Your task to perform on an android device: toggle sleep mode Image 0: 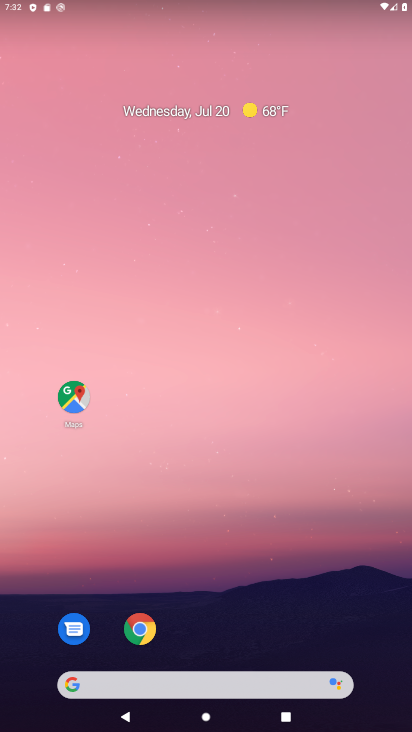
Step 0: drag from (360, 629) to (368, 86)
Your task to perform on an android device: toggle sleep mode Image 1: 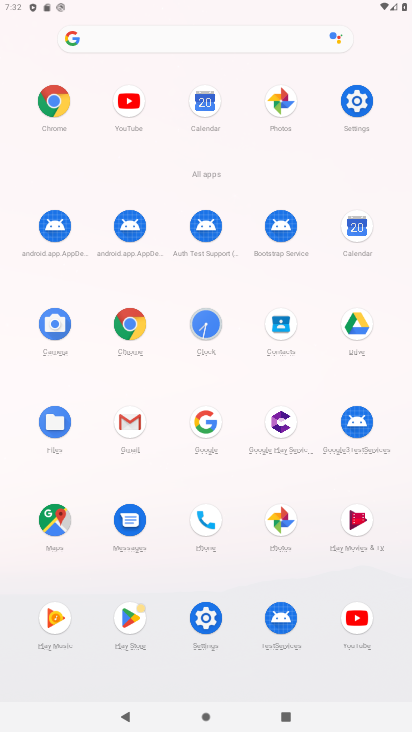
Step 1: click (358, 105)
Your task to perform on an android device: toggle sleep mode Image 2: 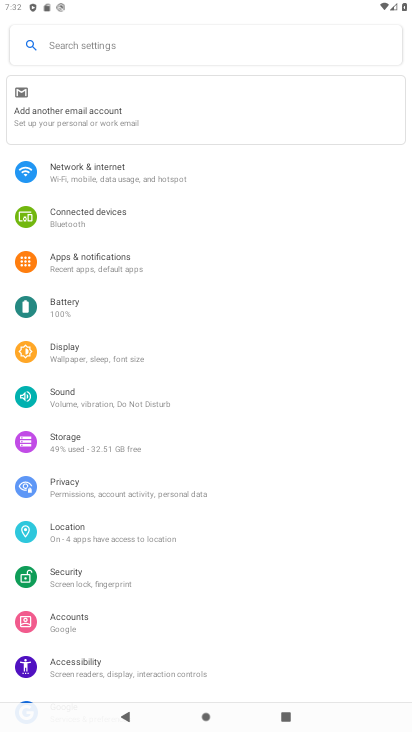
Step 2: drag from (367, 253) to (341, 432)
Your task to perform on an android device: toggle sleep mode Image 3: 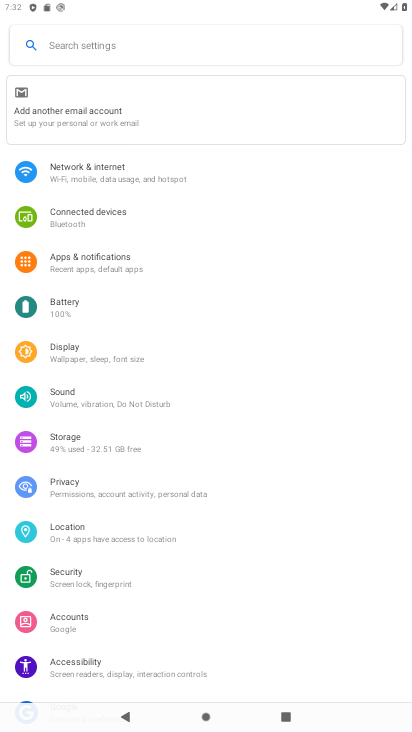
Step 3: drag from (341, 441) to (348, 384)
Your task to perform on an android device: toggle sleep mode Image 4: 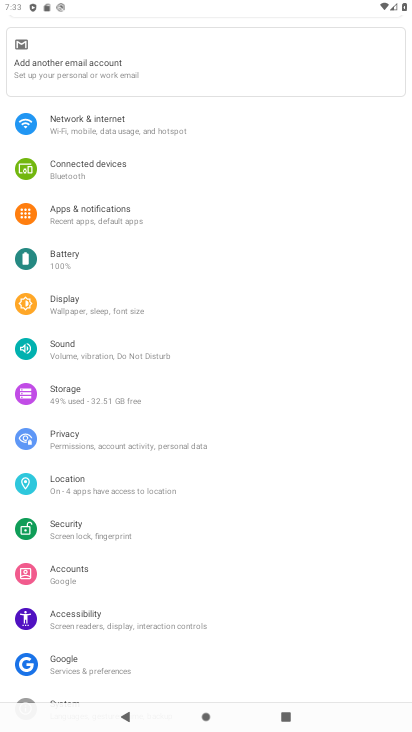
Step 4: drag from (340, 420) to (344, 271)
Your task to perform on an android device: toggle sleep mode Image 5: 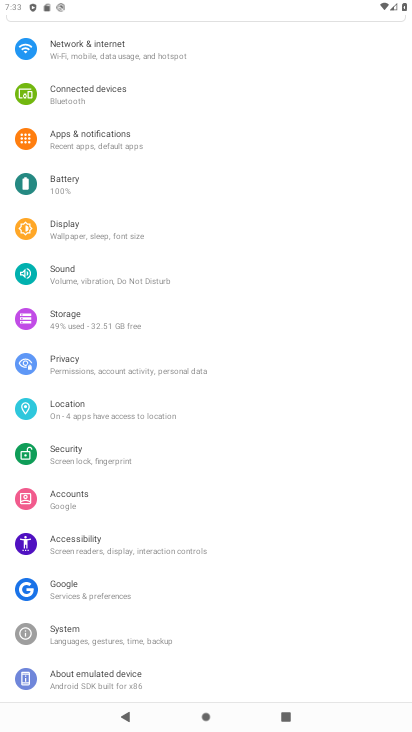
Step 5: click (224, 238)
Your task to perform on an android device: toggle sleep mode Image 6: 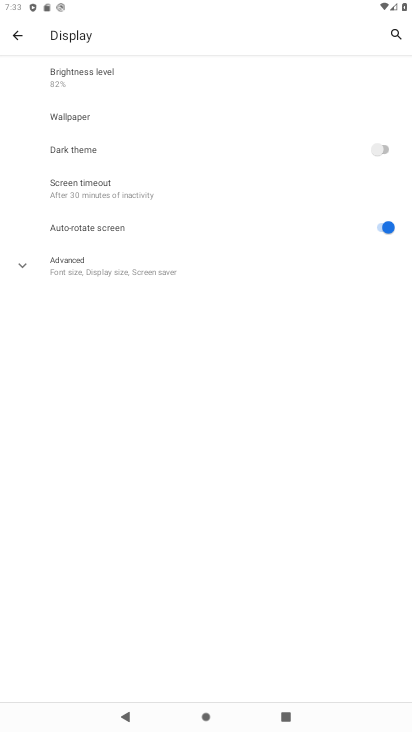
Step 6: click (205, 273)
Your task to perform on an android device: toggle sleep mode Image 7: 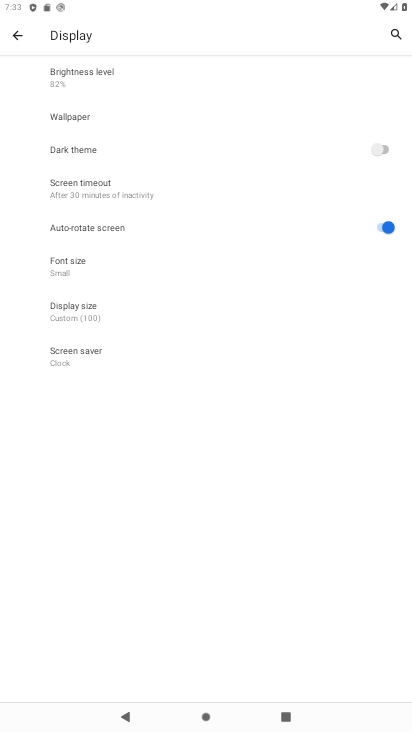
Step 7: task complete